Your task to perform on an android device: Open the web browser Image 0: 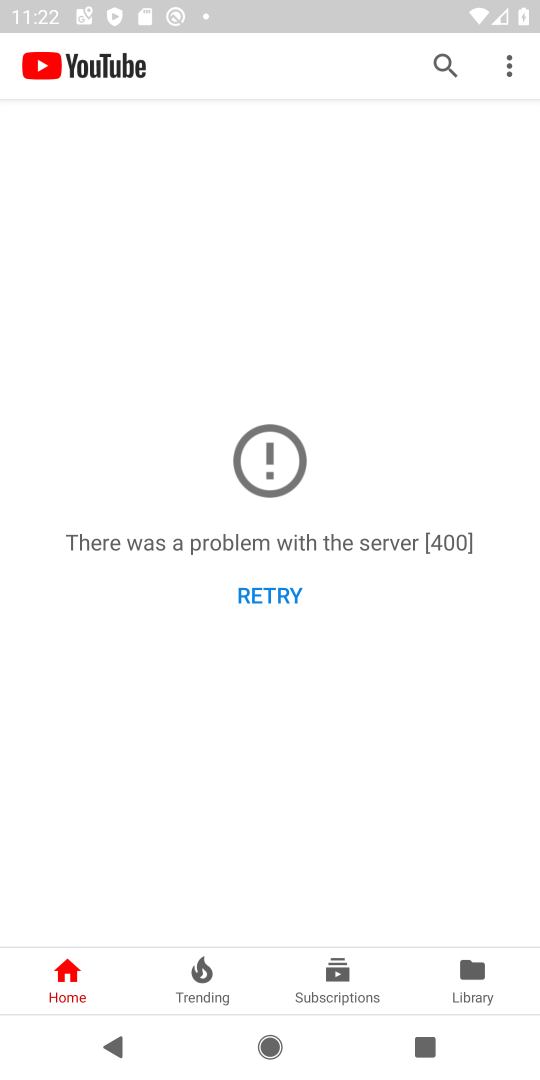
Step 0: press home button
Your task to perform on an android device: Open the web browser Image 1: 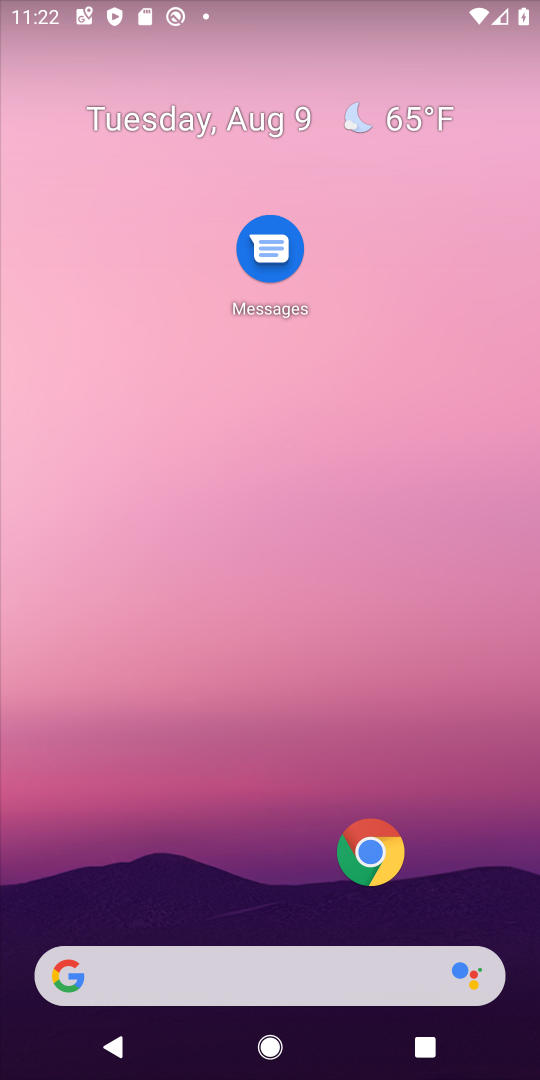
Step 1: click (327, 989)
Your task to perform on an android device: Open the web browser Image 2: 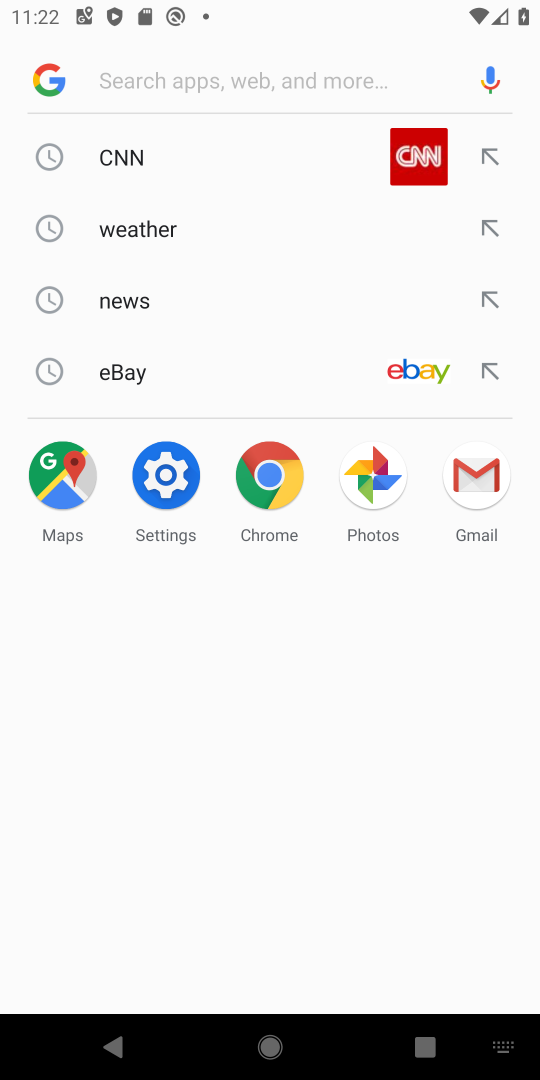
Step 2: task complete